Your task to perform on an android device: Open Chrome and go to settings Image 0: 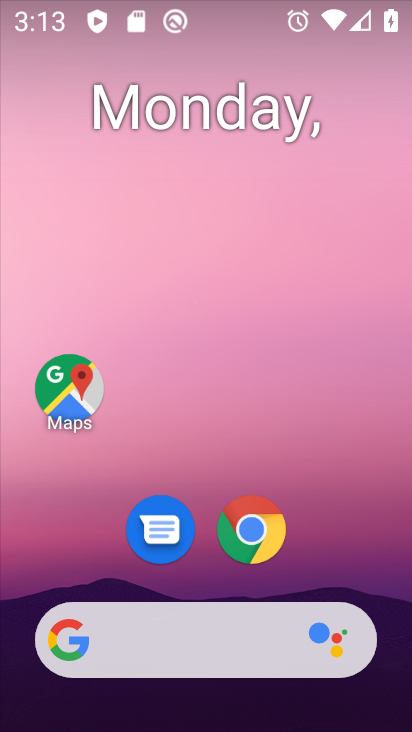
Step 0: click (248, 525)
Your task to perform on an android device: Open Chrome and go to settings Image 1: 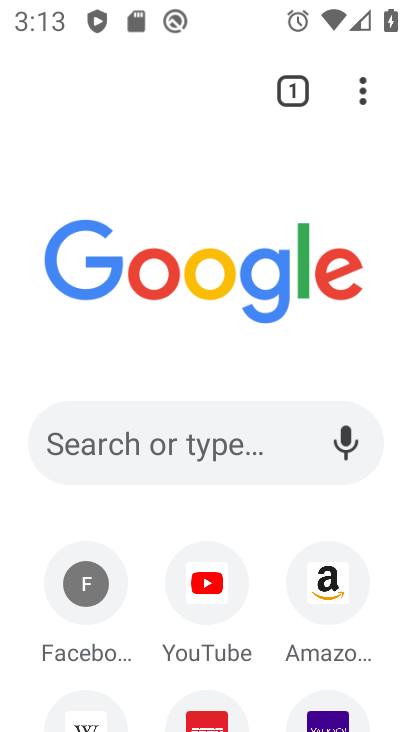
Step 1: click (364, 109)
Your task to perform on an android device: Open Chrome and go to settings Image 2: 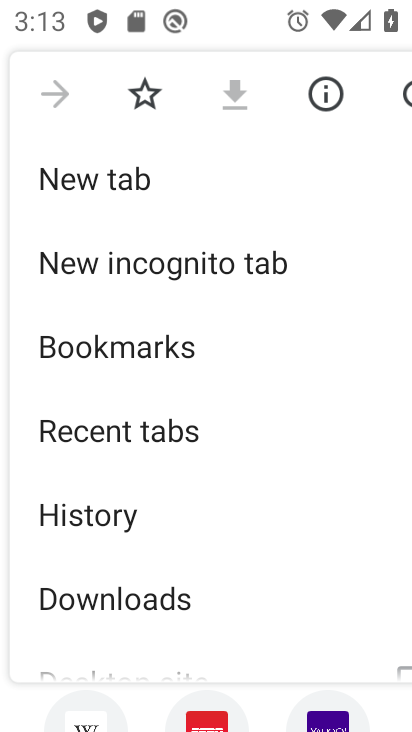
Step 2: drag from (146, 562) to (237, 60)
Your task to perform on an android device: Open Chrome and go to settings Image 3: 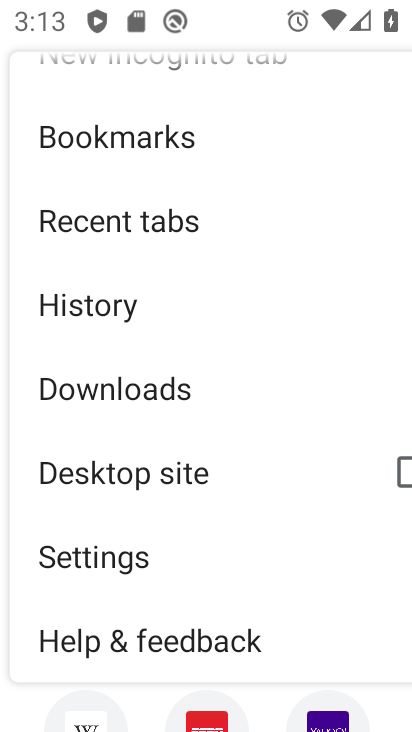
Step 3: click (114, 549)
Your task to perform on an android device: Open Chrome and go to settings Image 4: 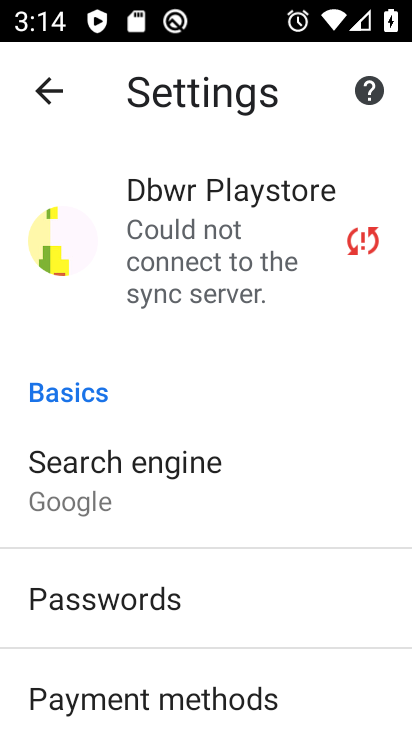
Step 4: task complete